Your task to perform on an android device: Open Amazon Image 0: 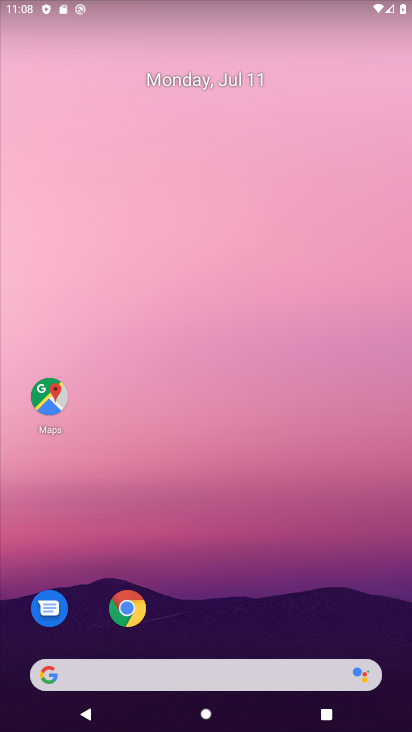
Step 0: click (132, 596)
Your task to perform on an android device: Open Amazon Image 1: 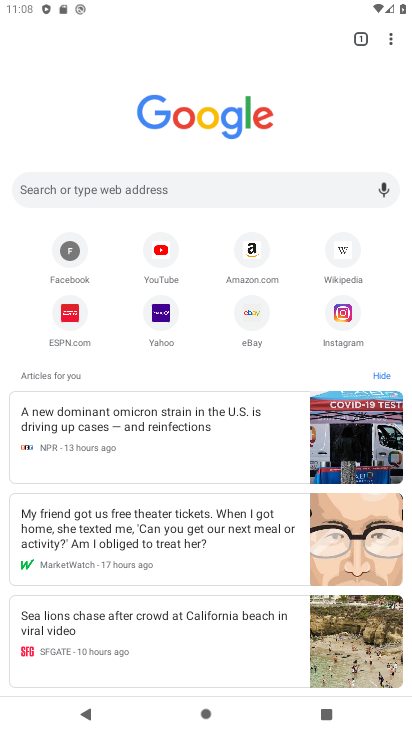
Step 1: click (254, 241)
Your task to perform on an android device: Open Amazon Image 2: 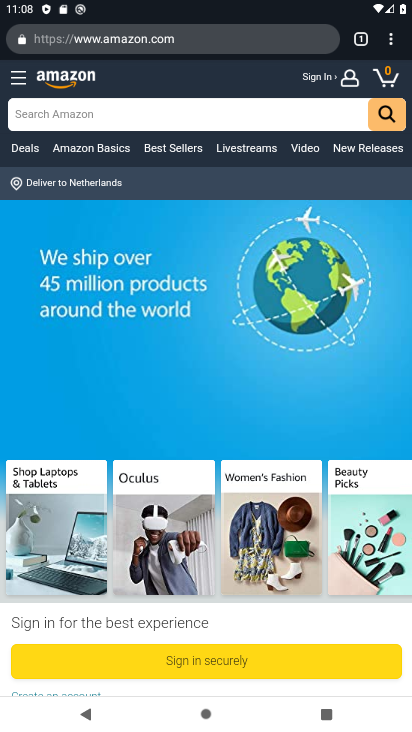
Step 2: task complete